Your task to perform on an android device: change keyboard looks Image 0: 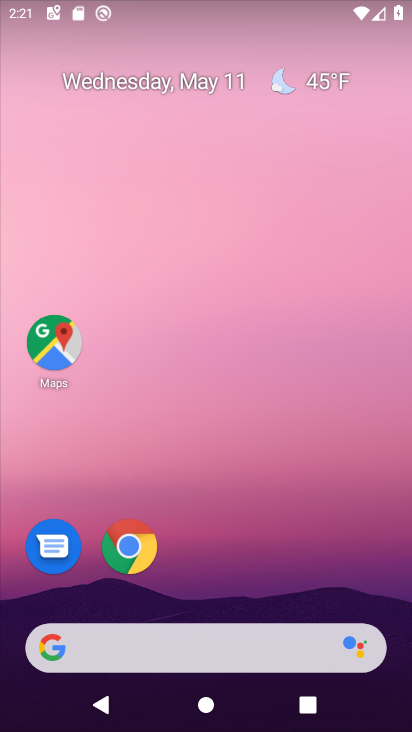
Step 0: drag from (233, 580) to (272, 3)
Your task to perform on an android device: change keyboard looks Image 1: 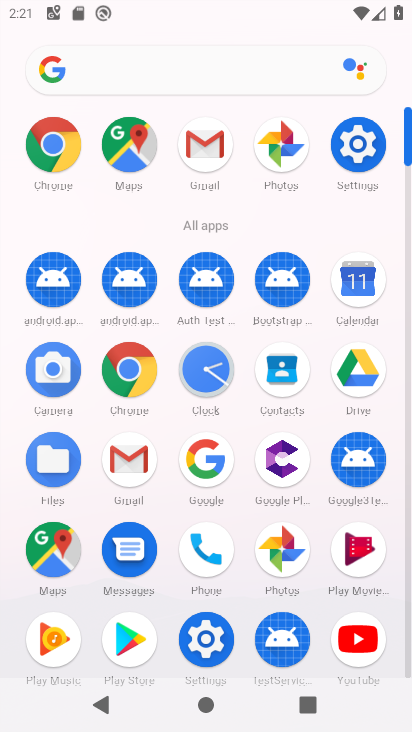
Step 1: click (345, 156)
Your task to perform on an android device: change keyboard looks Image 2: 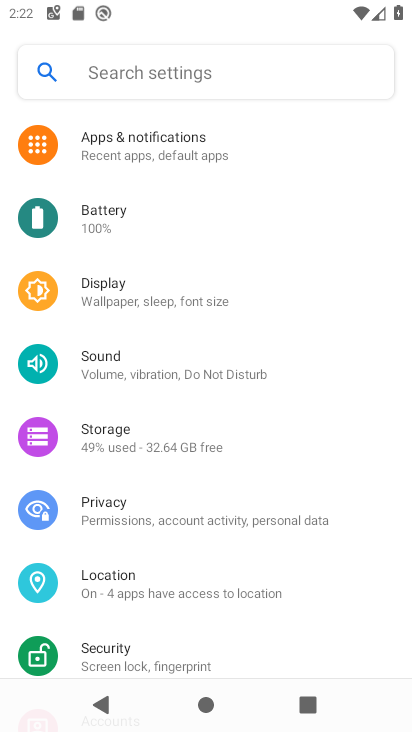
Step 2: drag from (171, 506) to (228, 143)
Your task to perform on an android device: change keyboard looks Image 3: 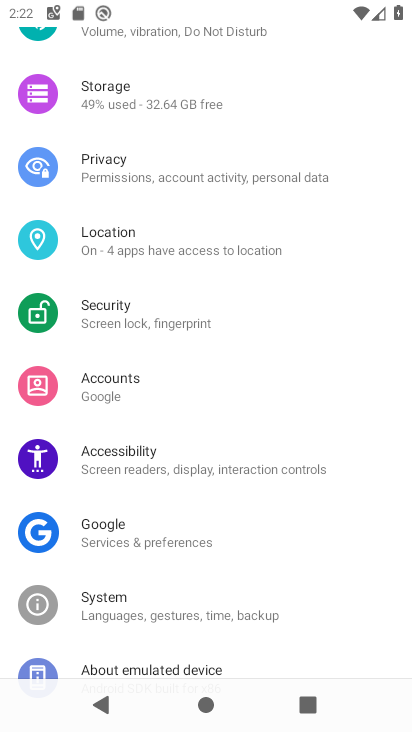
Step 3: drag from (140, 536) to (187, 173)
Your task to perform on an android device: change keyboard looks Image 4: 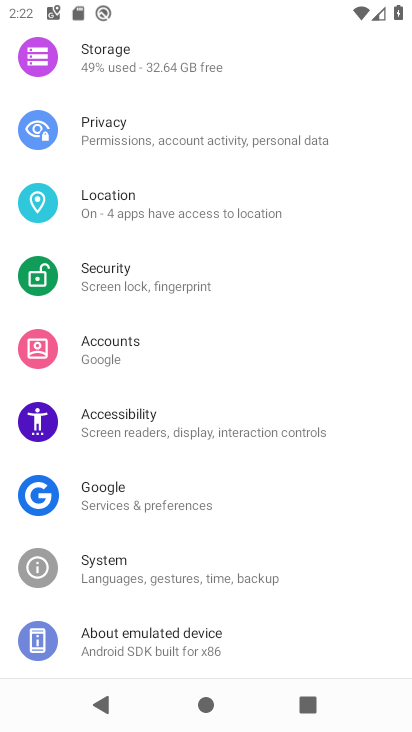
Step 4: click (118, 582)
Your task to perform on an android device: change keyboard looks Image 5: 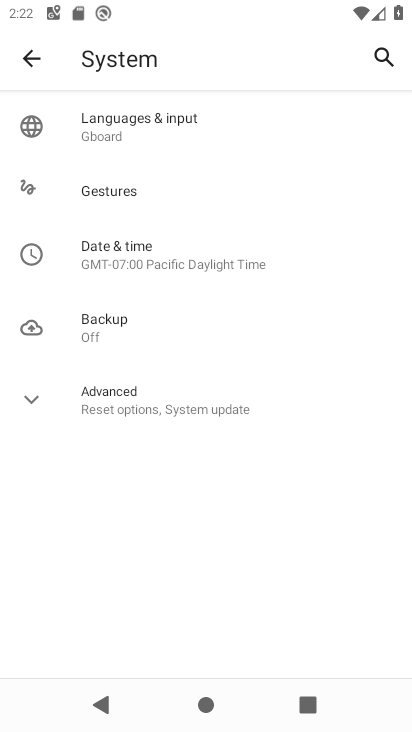
Step 5: click (140, 130)
Your task to perform on an android device: change keyboard looks Image 6: 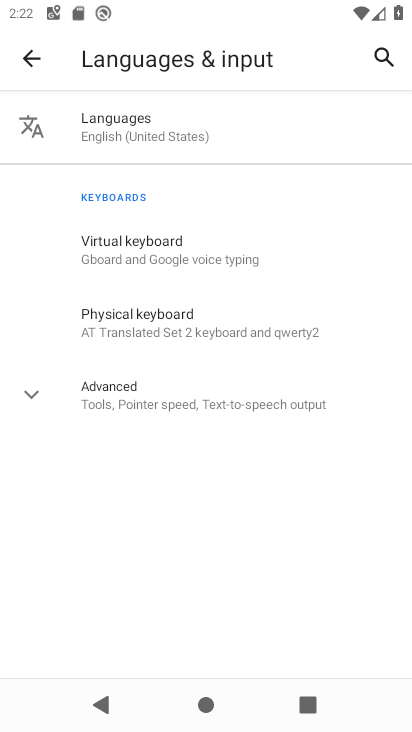
Step 6: click (168, 244)
Your task to perform on an android device: change keyboard looks Image 7: 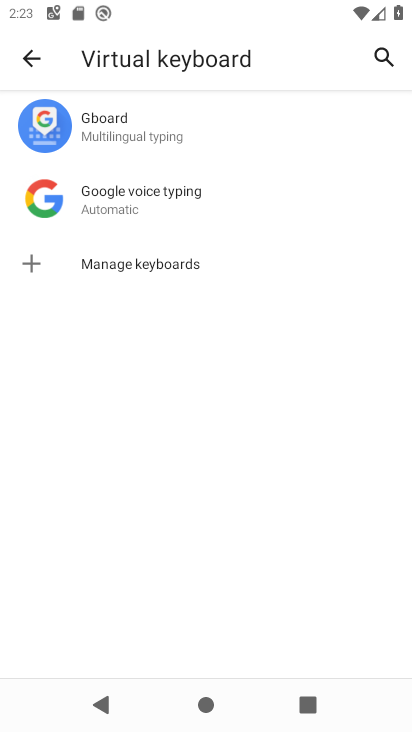
Step 7: click (145, 136)
Your task to perform on an android device: change keyboard looks Image 8: 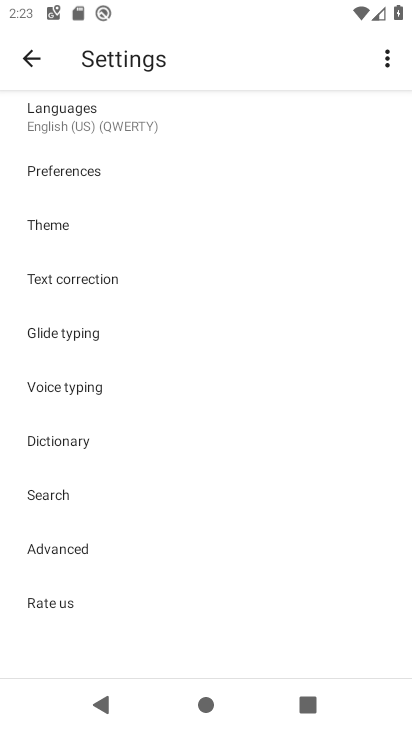
Step 8: click (61, 235)
Your task to perform on an android device: change keyboard looks Image 9: 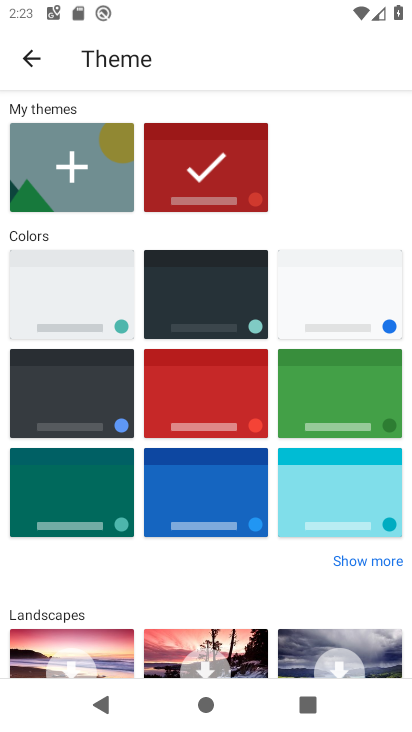
Step 9: click (107, 380)
Your task to perform on an android device: change keyboard looks Image 10: 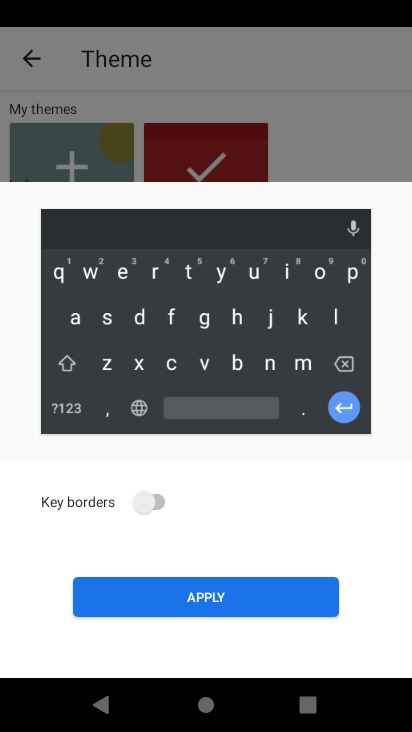
Step 10: click (231, 608)
Your task to perform on an android device: change keyboard looks Image 11: 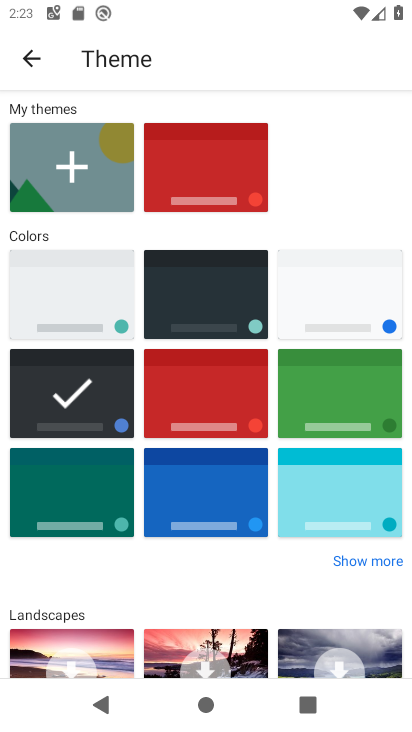
Step 11: task complete